Your task to perform on an android device: change the upload size in google photos Image 0: 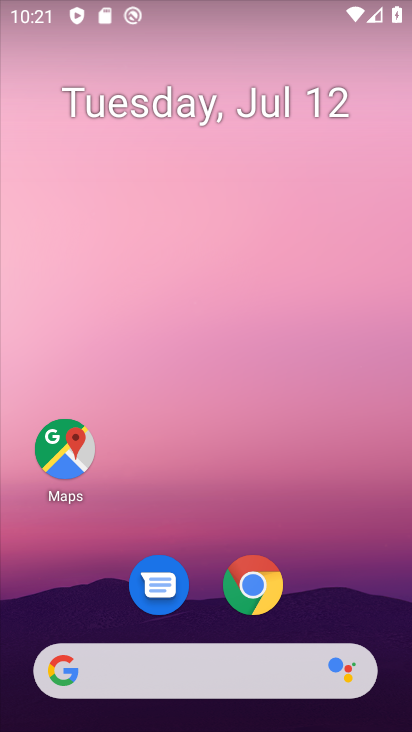
Step 0: drag from (331, 585) to (307, 44)
Your task to perform on an android device: change the upload size in google photos Image 1: 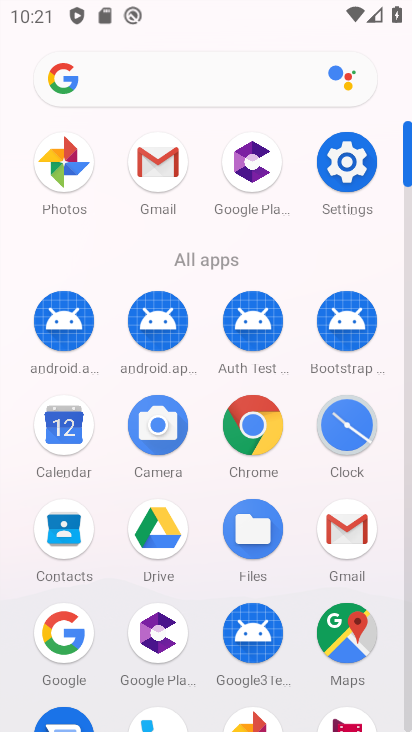
Step 1: click (62, 170)
Your task to perform on an android device: change the upload size in google photos Image 2: 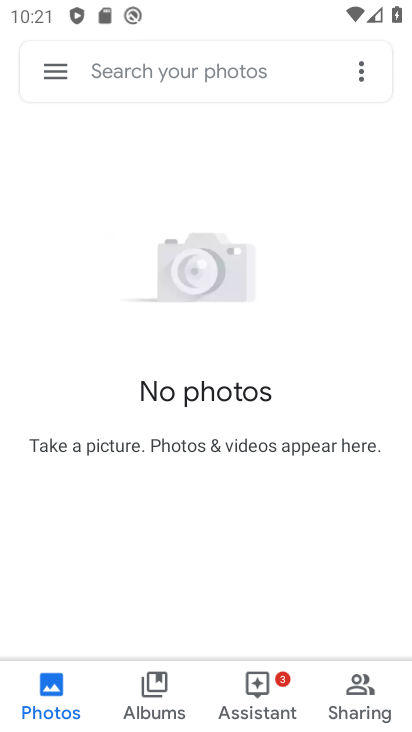
Step 2: click (58, 73)
Your task to perform on an android device: change the upload size in google photos Image 3: 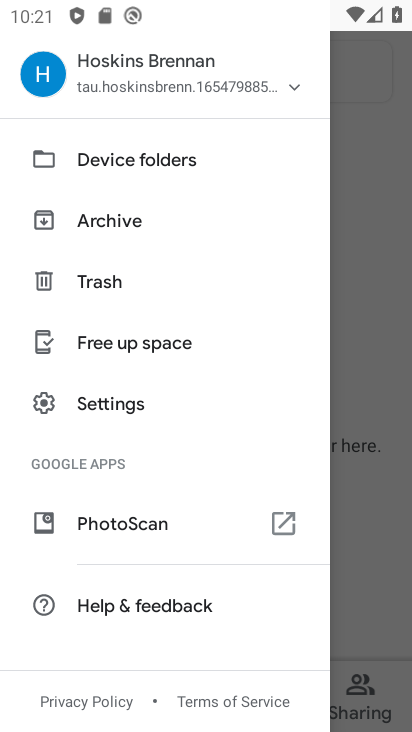
Step 3: click (118, 403)
Your task to perform on an android device: change the upload size in google photos Image 4: 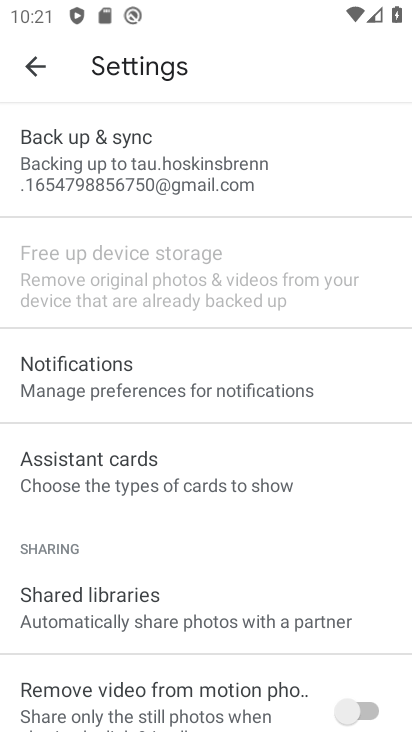
Step 4: drag from (163, 562) to (160, 130)
Your task to perform on an android device: change the upload size in google photos Image 5: 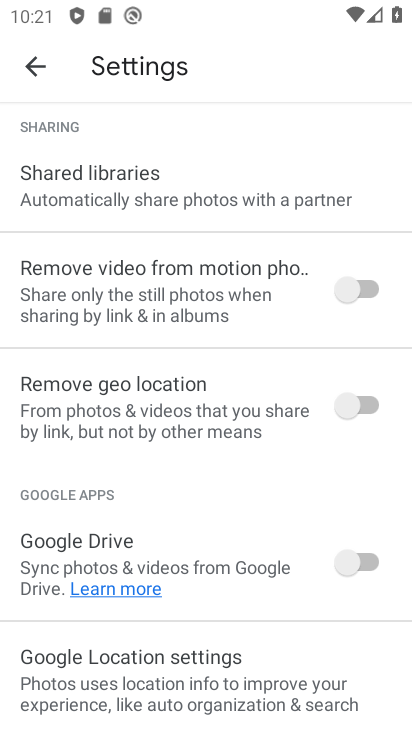
Step 5: drag from (224, 182) to (232, 636)
Your task to perform on an android device: change the upload size in google photos Image 6: 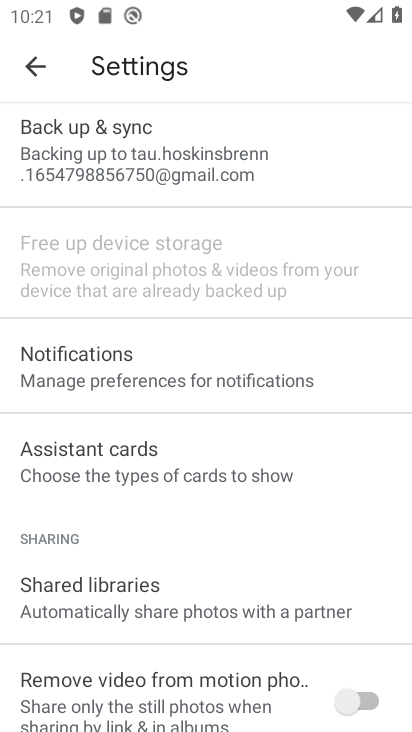
Step 6: click (172, 144)
Your task to perform on an android device: change the upload size in google photos Image 7: 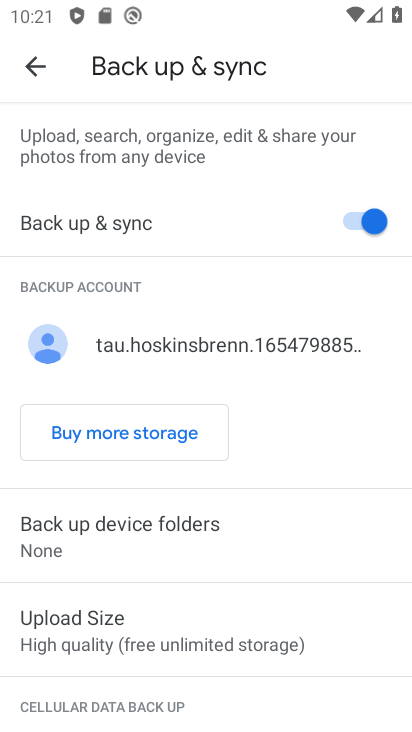
Step 7: click (161, 634)
Your task to perform on an android device: change the upload size in google photos Image 8: 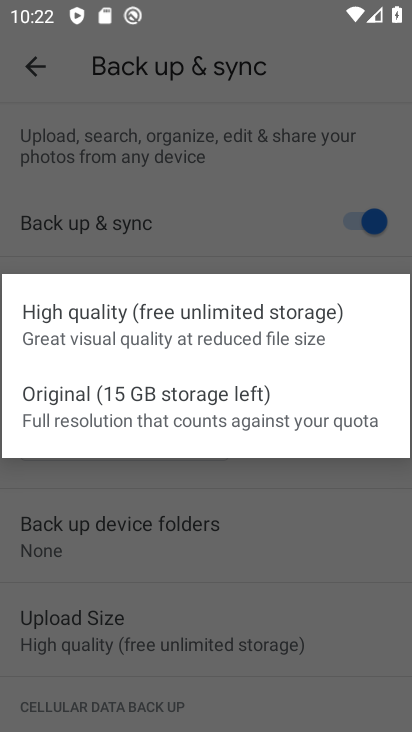
Step 8: click (202, 409)
Your task to perform on an android device: change the upload size in google photos Image 9: 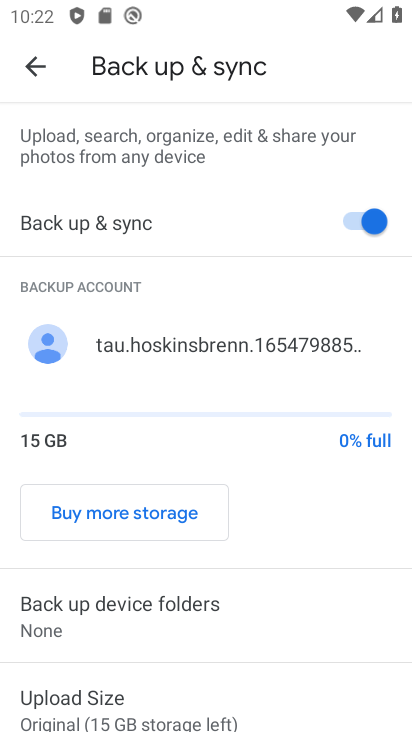
Step 9: task complete